Your task to perform on an android device: Open location settings Image 0: 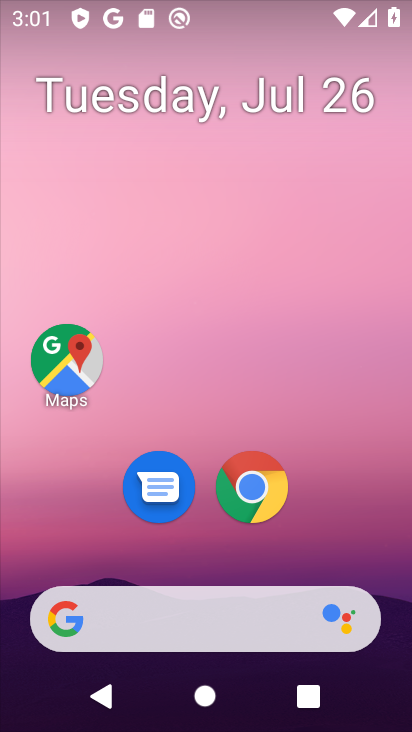
Step 0: drag from (70, 504) to (174, 0)
Your task to perform on an android device: Open location settings Image 1: 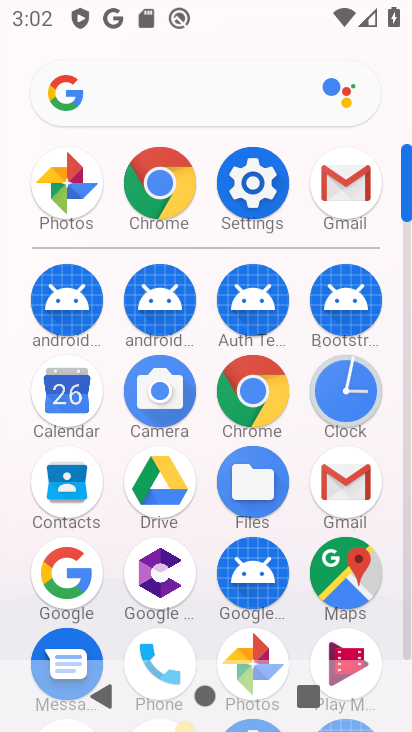
Step 1: click (251, 175)
Your task to perform on an android device: Open location settings Image 2: 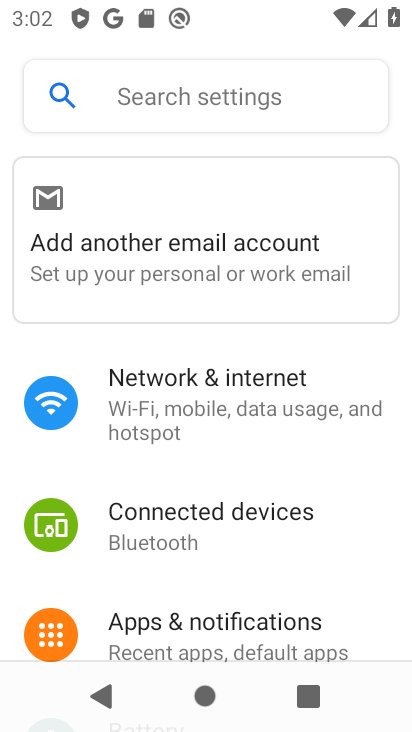
Step 2: drag from (204, 645) to (300, 57)
Your task to perform on an android device: Open location settings Image 3: 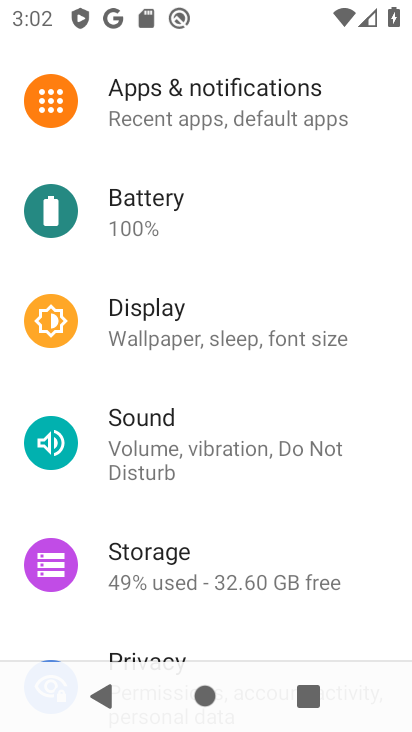
Step 3: drag from (201, 624) to (266, 1)
Your task to perform on an android device: Open location settings Image 4: 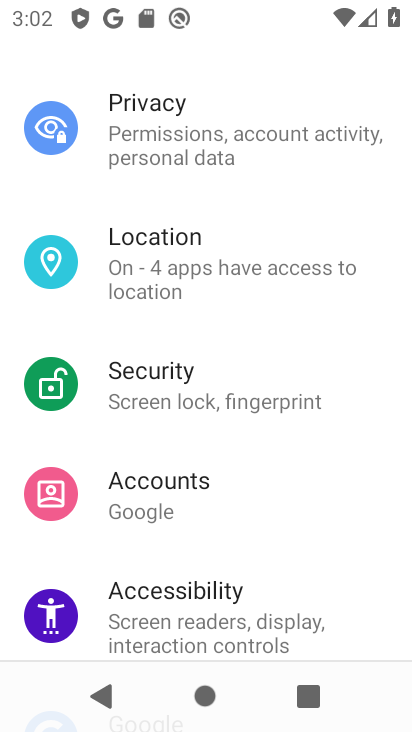
Step 4: click (195, 254)
Your task to perform on an android device: Open location settings Image 5: 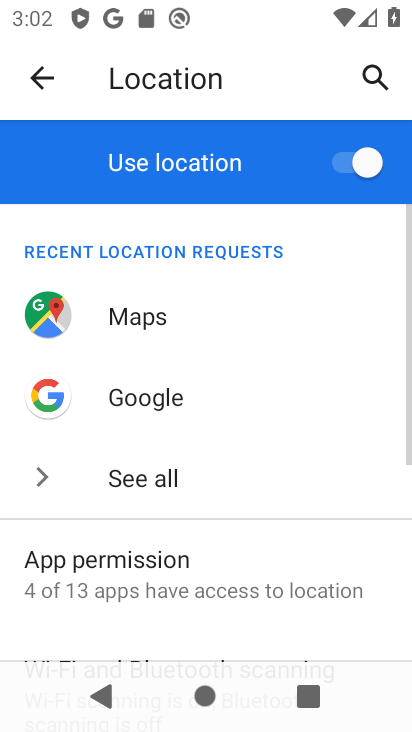
Step 5: task complete